Your task to perform on an android device: Search for Italian restaurants on Maps Image 0: 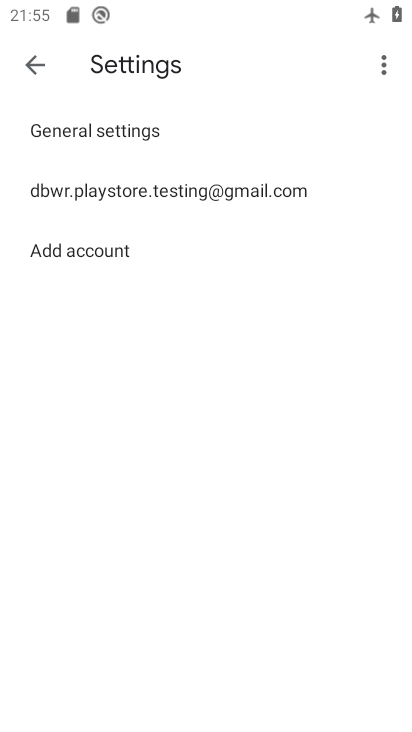
Step 0: press home button
Your task to perform on an android device: Search for Italian restaurants on Maps Image 1: 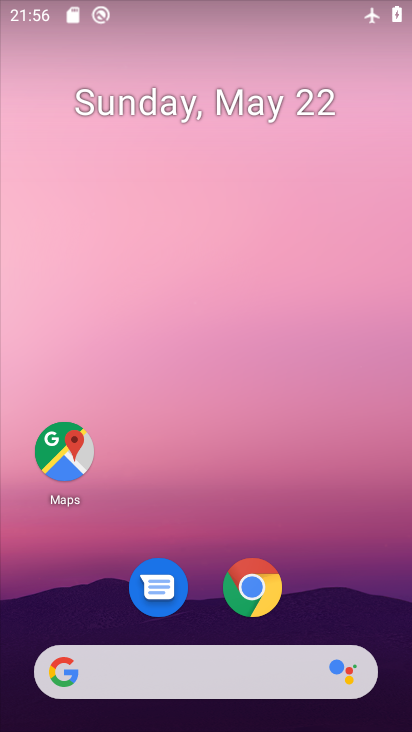
Step 1: click (62, 464)
Your task to perform on an android device: Search for Italian restaurants on Maps Image 2: 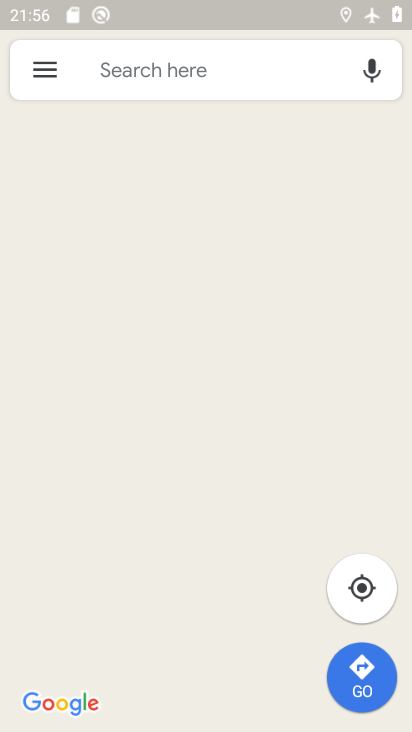
Step 2: task complete